Your task to perform on an android device: snooze an email in the gmail app Image 0: 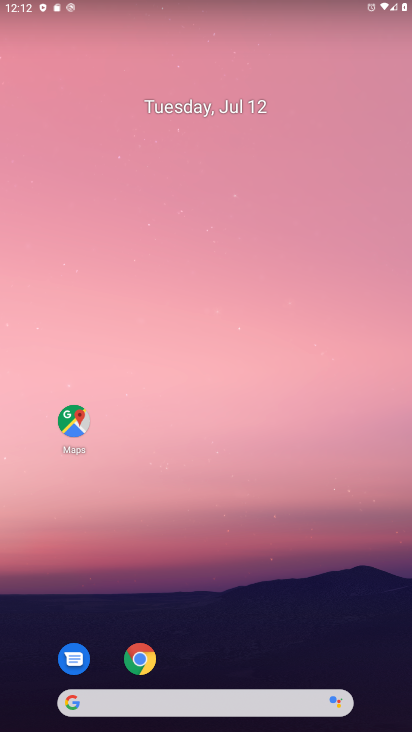
Step 0: drag from (198, 576) to (188, 205)
Your task to perform on an android device: snooze an email in the gmail app Image 1: 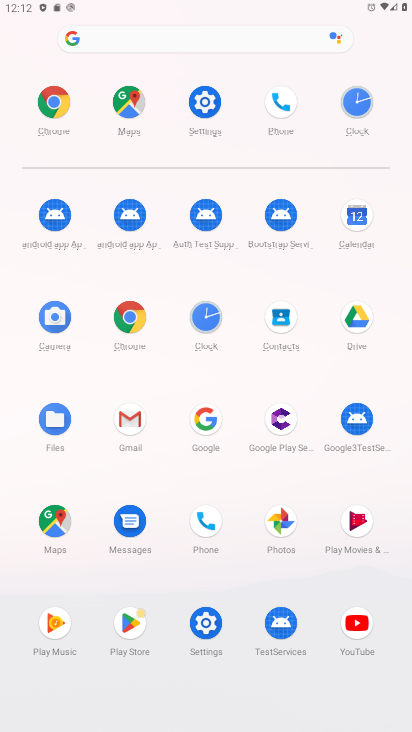
Step 1: click (126, 417)
Your task to perform on an android device: snooze an email in the gmail app Image 2: 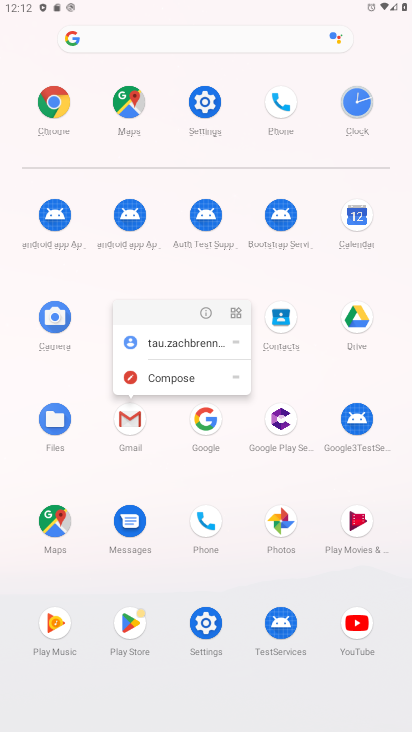
Step 2: click (205, 307)
Your task to perform on an android device: snooze an email in the gmail app Image 3: 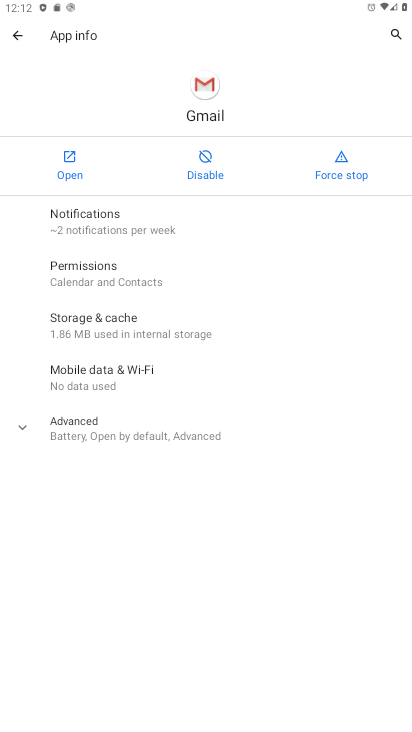
Step 3: click (71, 157)
Your task to perform on an android device: snooze an email in the gmail app Image 4: 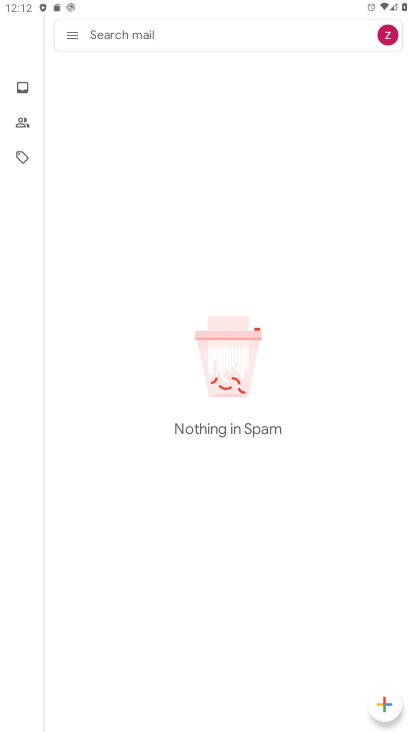
Step 4: drag from (208, 484) to (199, 246)
Your task to perform on an android device: snooze an email in the gmail app Image 5: 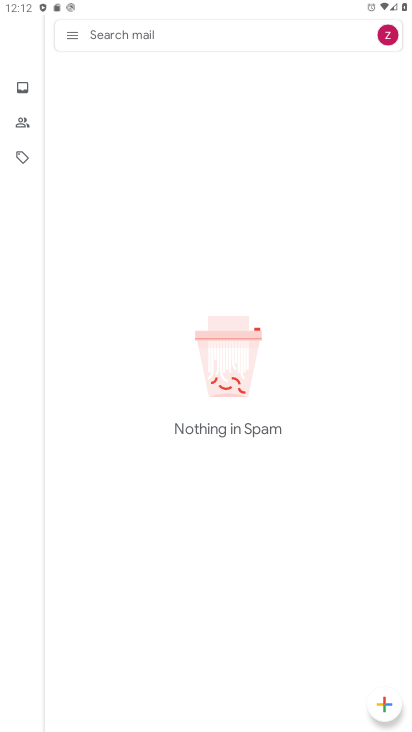
Step 5: click (67, 43)
Your task to perform on an android device: snooze an email in the gmail app Image 6: 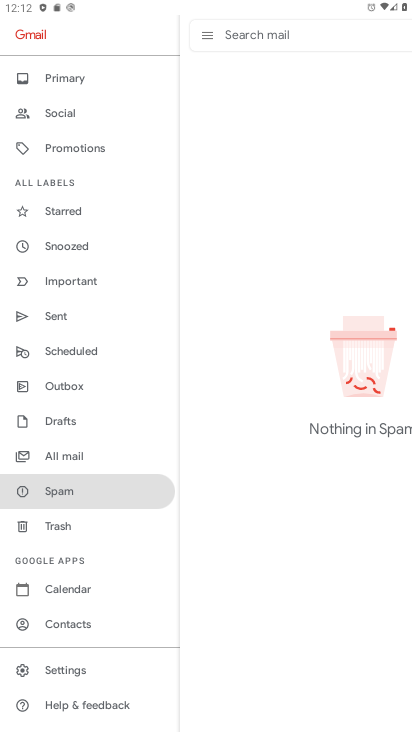
Step 6: click (72, 218)
Your task to perform on an android device: snooze an email in the gmail app Image 7: 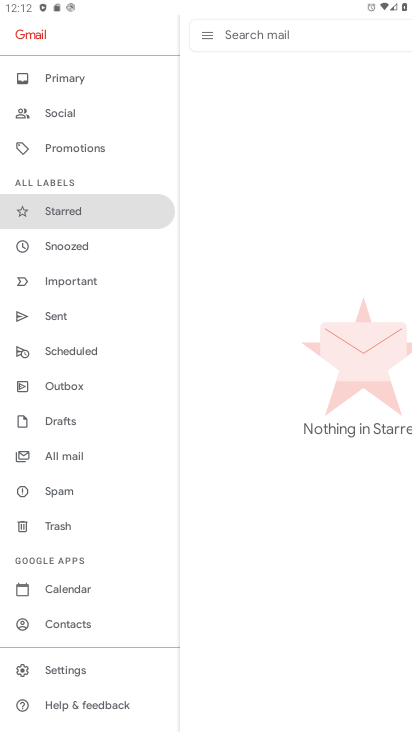
Step 7: click (67, 258)
Your task to perform on an android device: snooze an email in the gmail app Image 8: 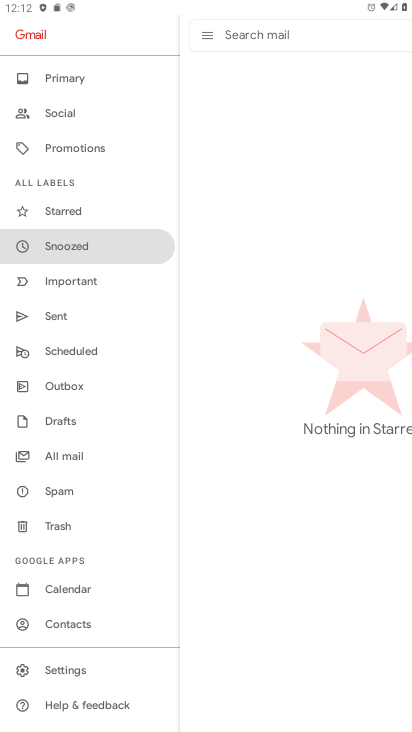
Step 8: click (68, 246)
Your task to perform on an android device: snooze an email in the gmail app Image 9: 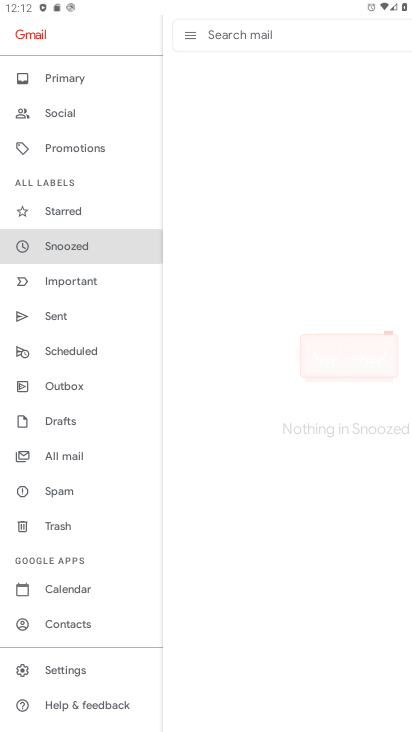
Step 9: click (297, 270)
Your task to perform on an android device: snooze an email in the gmail app Image 10: 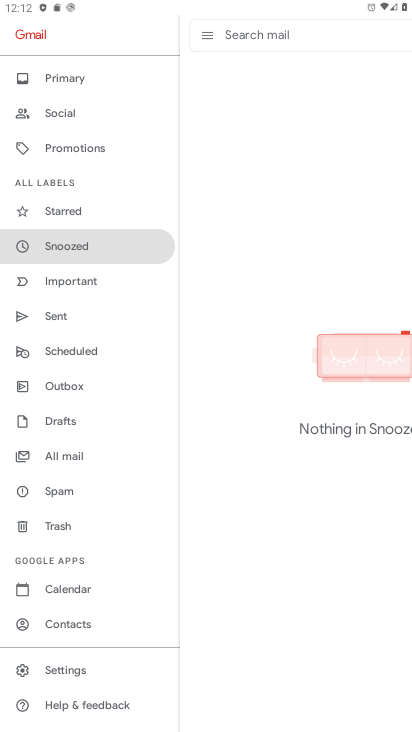
Step 10: task complete